Your task to perform on an android device: Search for a new foundation (skincare) product Image 0: 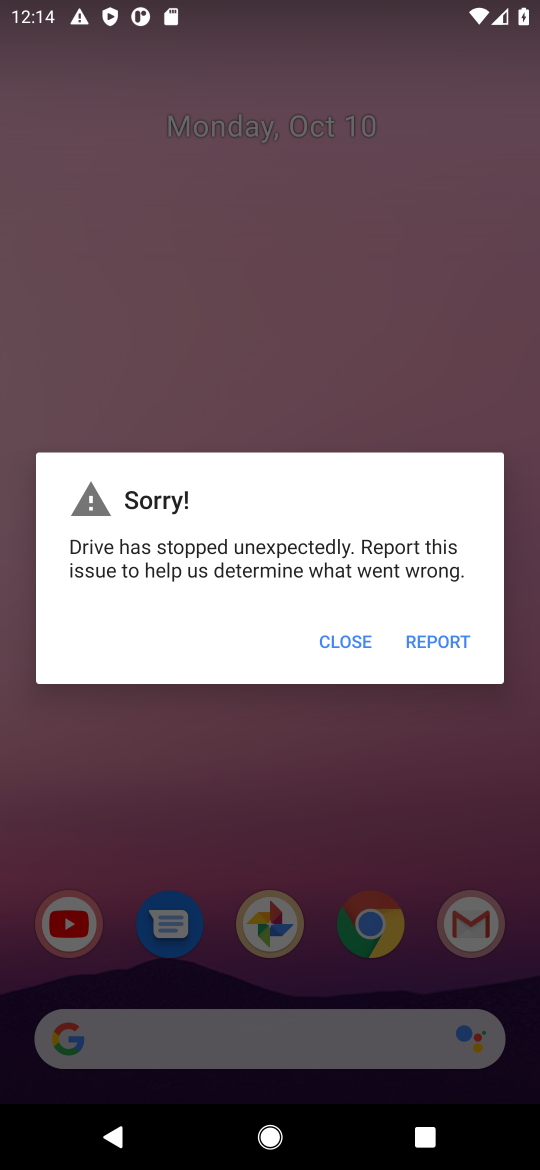
Step 0: press home button
Your task to perform on an android device: Search for a new foundation (skincare) product Image 1: 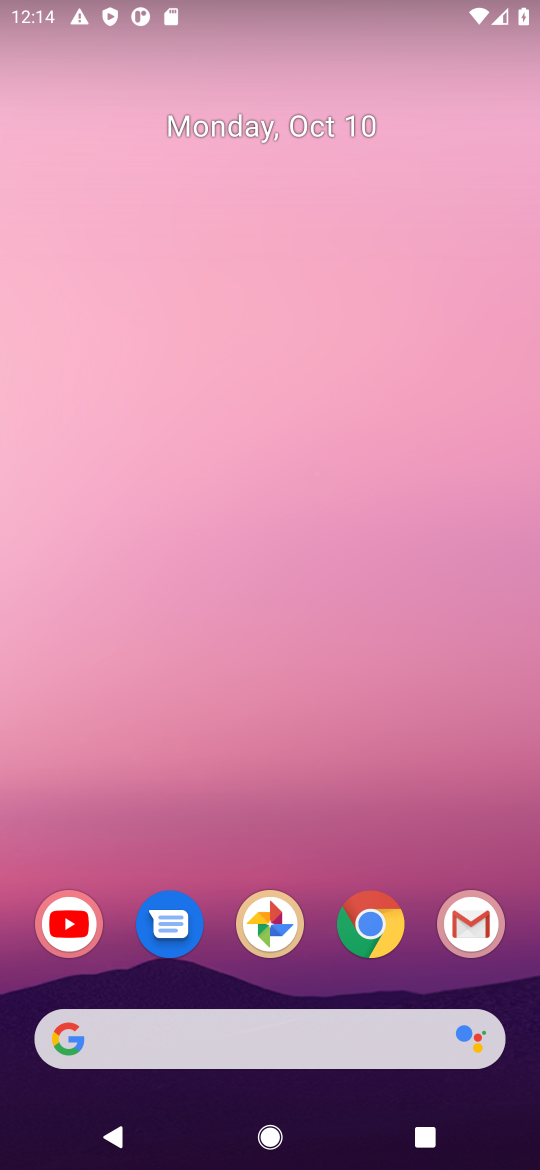
Step 1: drag from (221, 921) to (408, 149)
Your task to perform on an android device: Search for a new foundation (skincare) product Image 2: 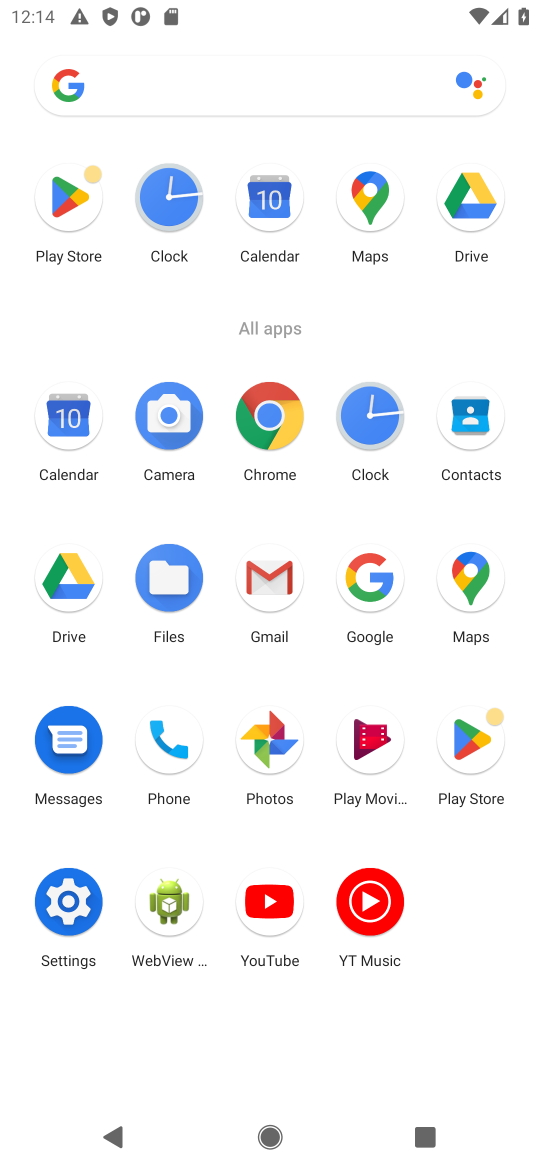
Step 2: click (272, 429)
Your task to perform on an android device: Search for a new foundation (skincare) product Image 3: 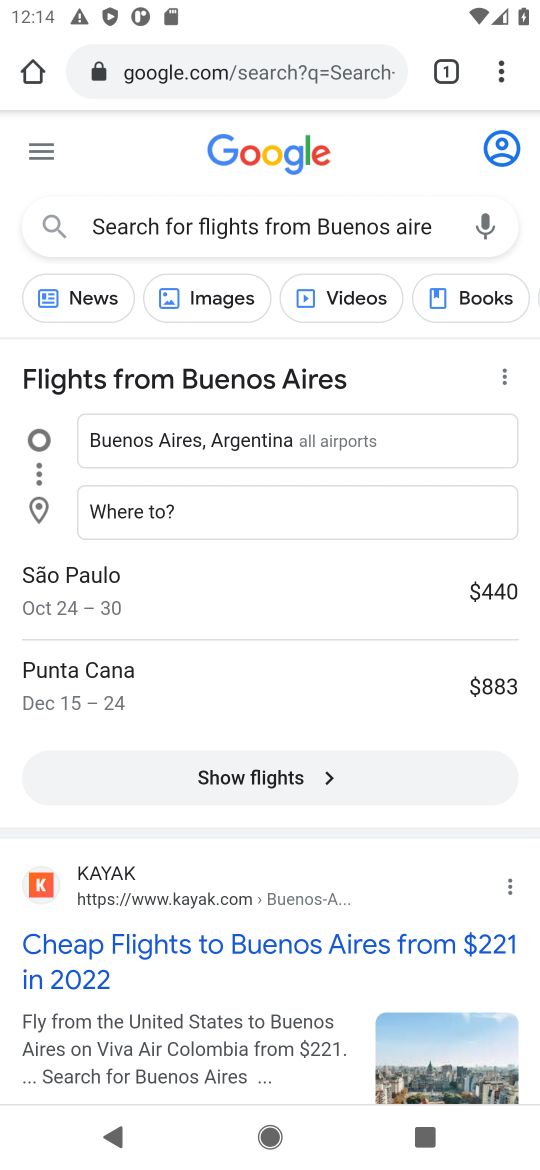
Step 3: click (336, 80)
Your task to perform on an android device: Search for a new foundation (skincare) product Image 4: 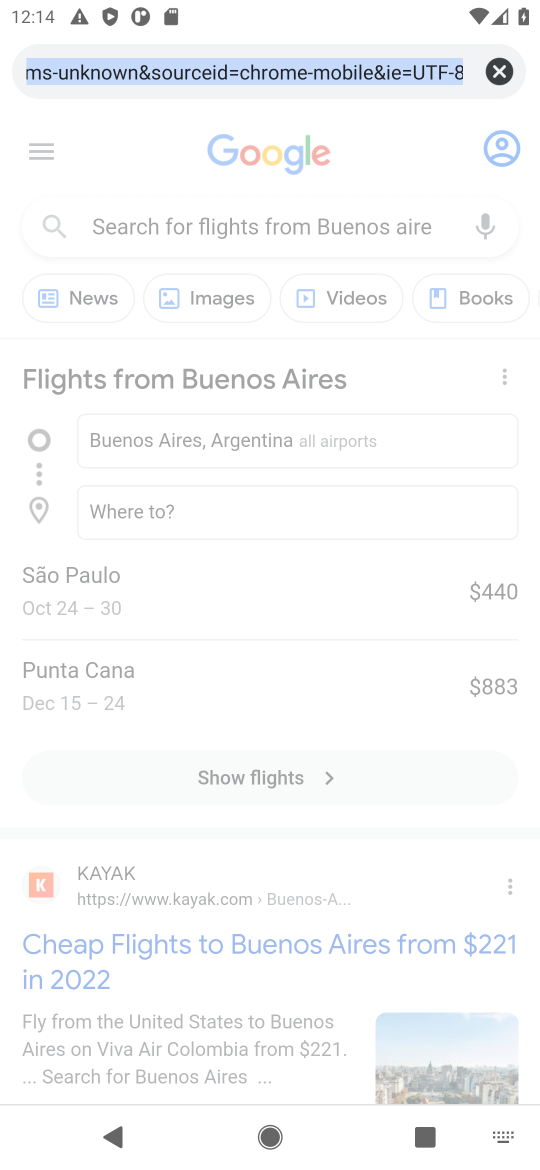
Step 4: click (345, 73)
Your task to perform on an android device: Search for a new foundation (skincare) product Image 5: 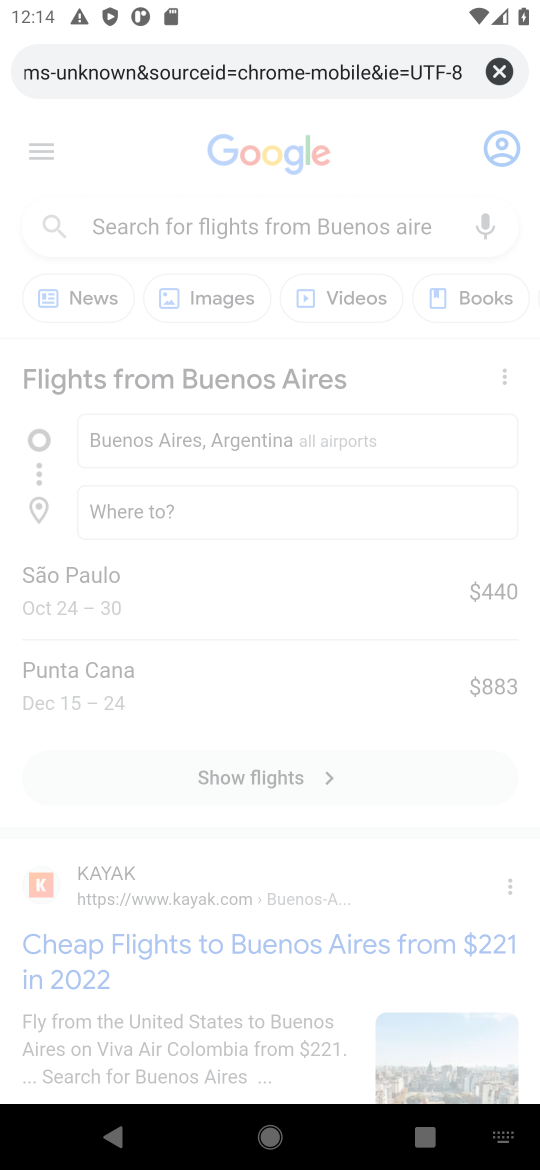
Step 5: click (487, 81)
Your task to perform on an android device: Search for a new foundation (skincare) product Image 6: 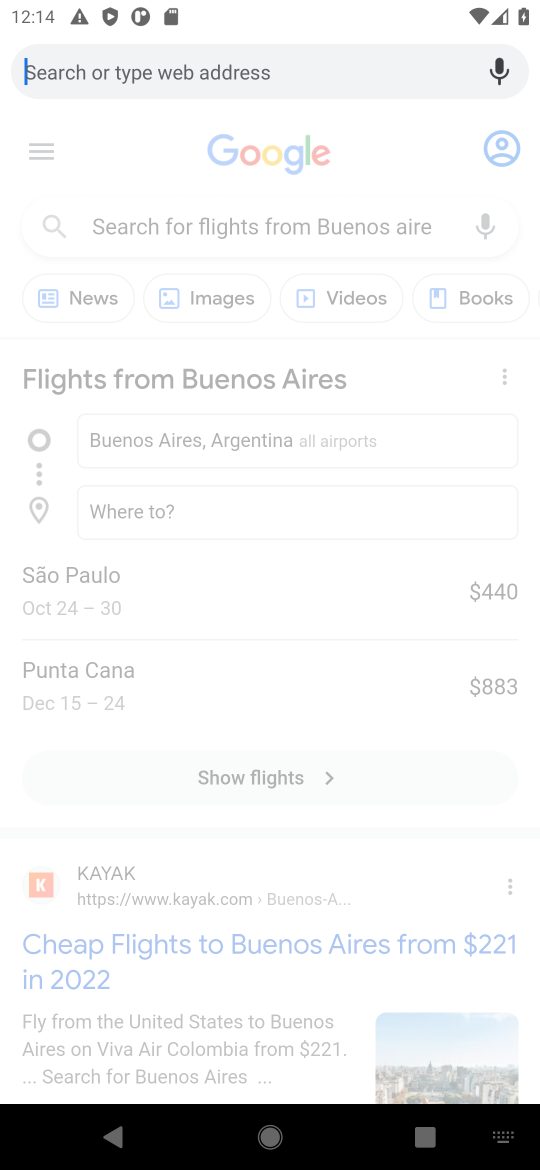
Step 6: click (499, 77)
Your task to perform on an android device: Search for a new foundation (skincare) product Image 7: 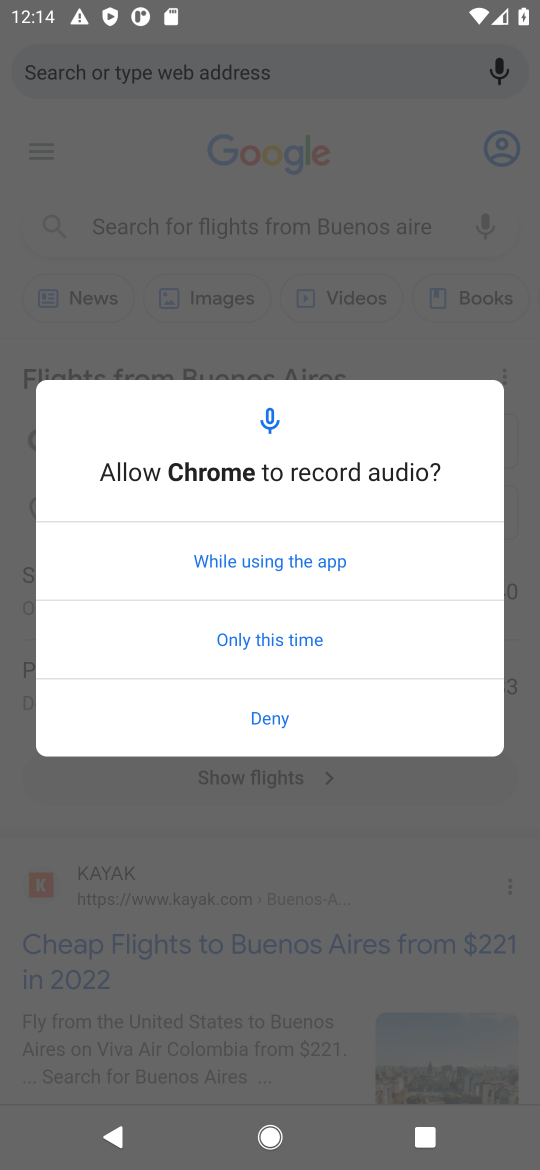
Step 7: type "Search for a new foundation (skincare) product"
Your task to perform on an android device: Search for a new foundation (skincare) product Image 8: 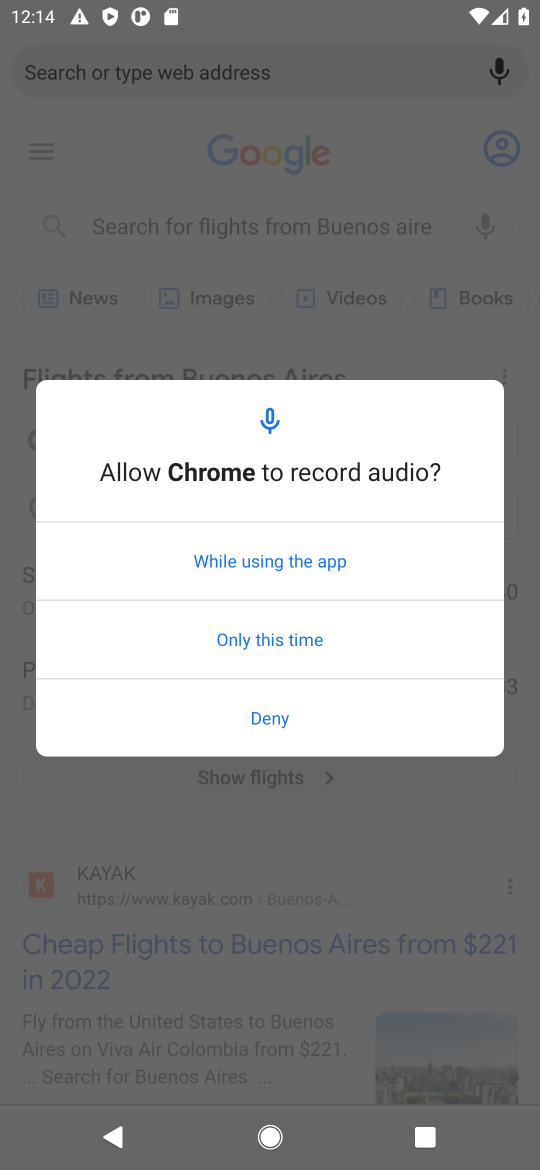
Step 8: click (311, 713)
Your task to perform on an android device: Search for a new foundation (skincare) product Image 9: 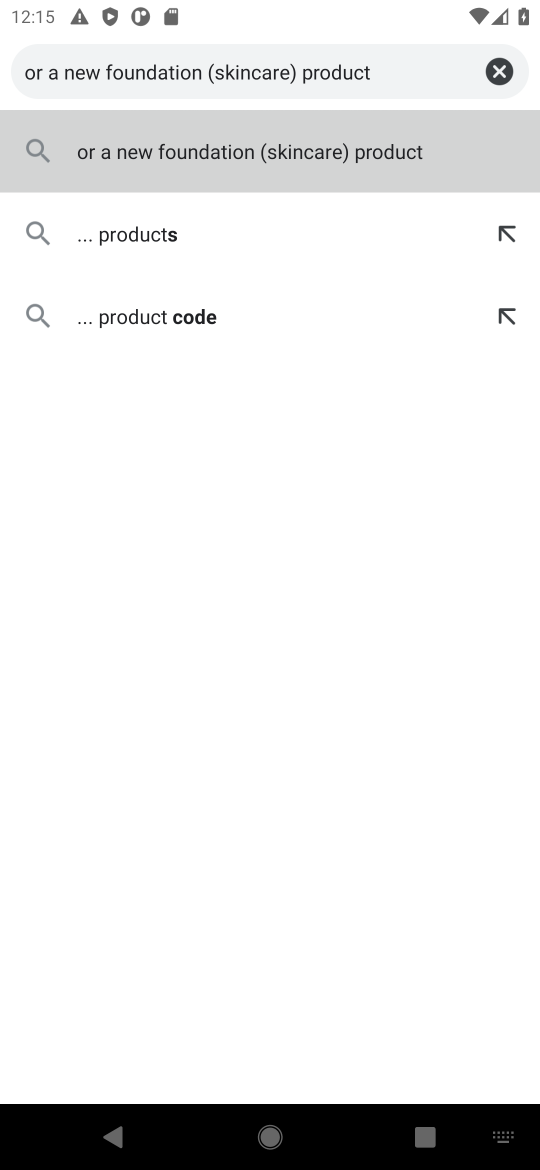
Step 9: press enter
Your task to perform on an android device: Search for a new foundation (skincare) product Image 10: 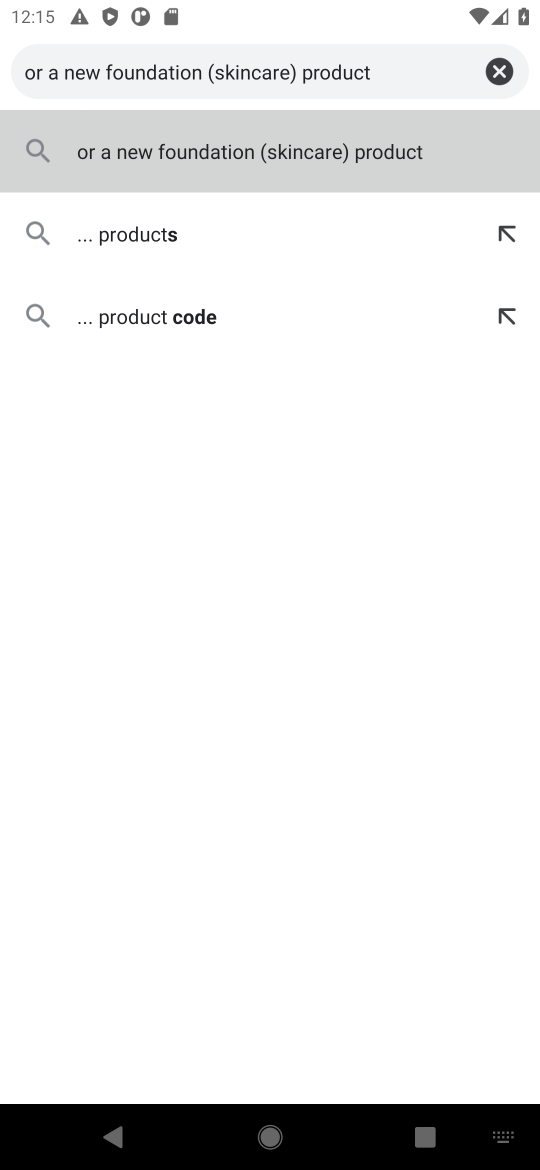
Step 10: click (245, 729)
Your task to perform on an android device: Search for a new foundation (skincare) product Image 11: 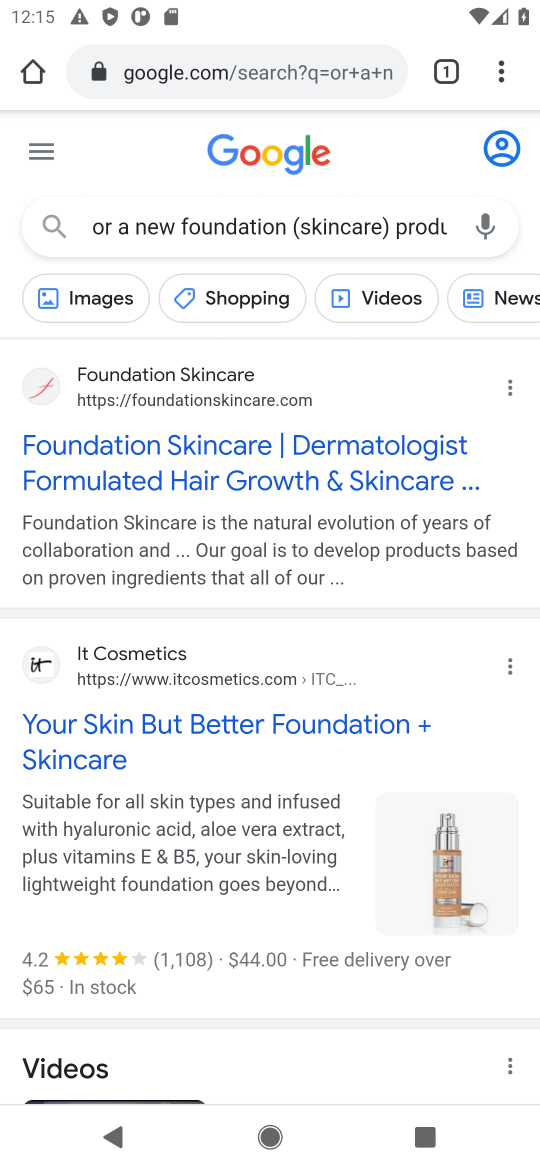
Step 11: click (181, 468)
Your task to perform on an android device: Search for a new foundation (skincare) product Image 12: 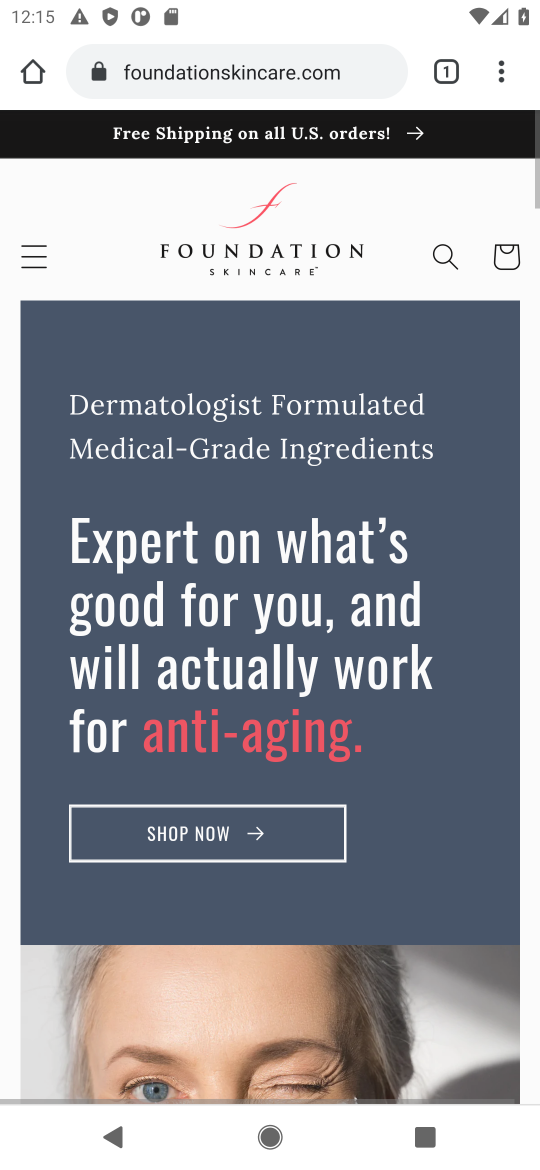
Step 12: task complete